Your task to perform on an android device: Go to settings Image 0: 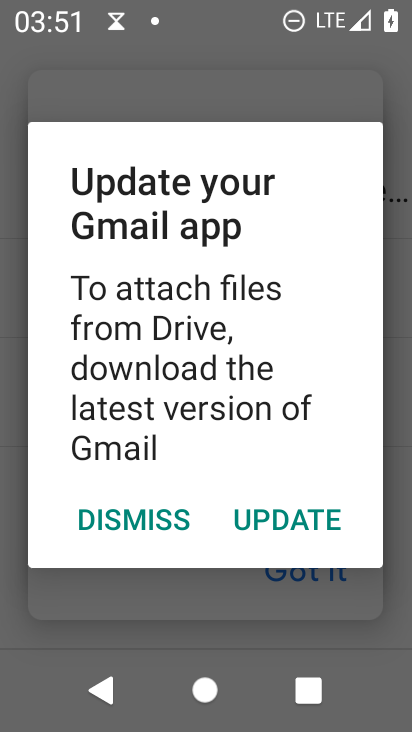
Step 0: press home button
Your task to perform on an android device: Go to settings Image 1: 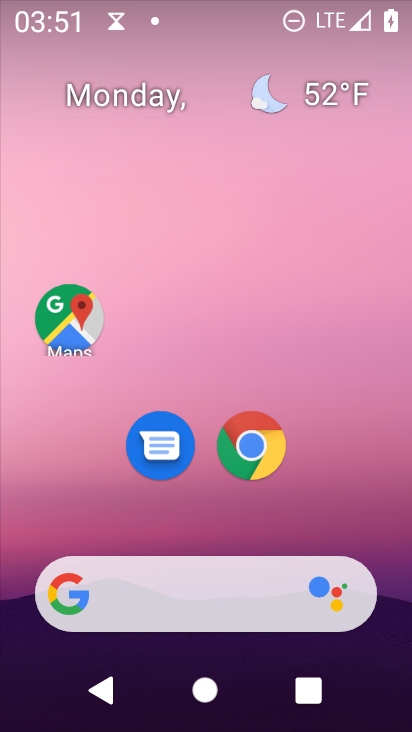
Step 1: drag from (228, 533) to (353, 15)
Your task to perform on an android device: Go to settings Image 2: 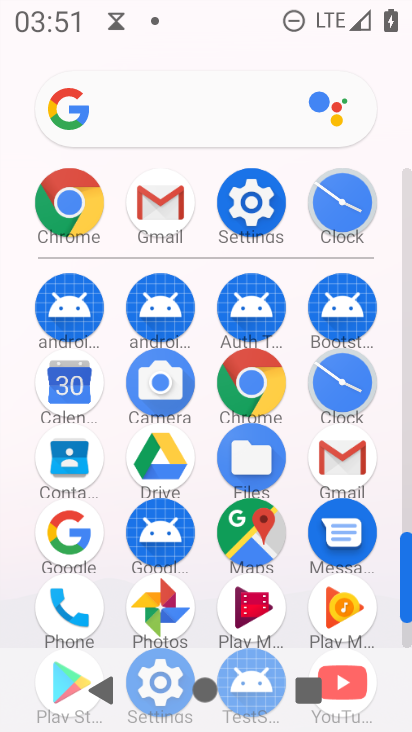
Step 2: click (252, 204)
Your task to perform on an android device: Go to settings Image 3: 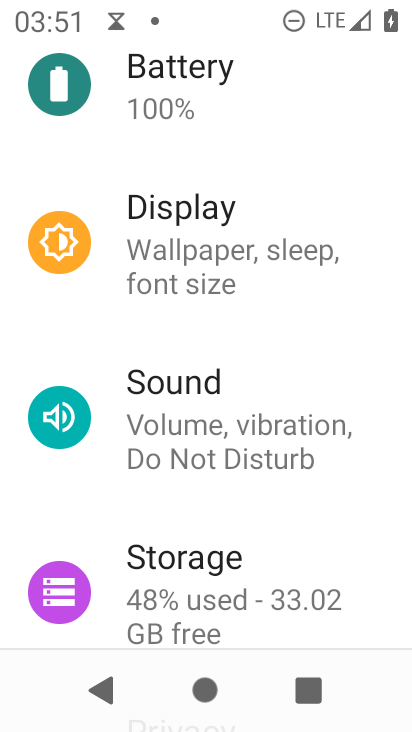
Step 3: task complete